Your task to perform on an android device: toggle priority inbox in the gmail app Image 0: 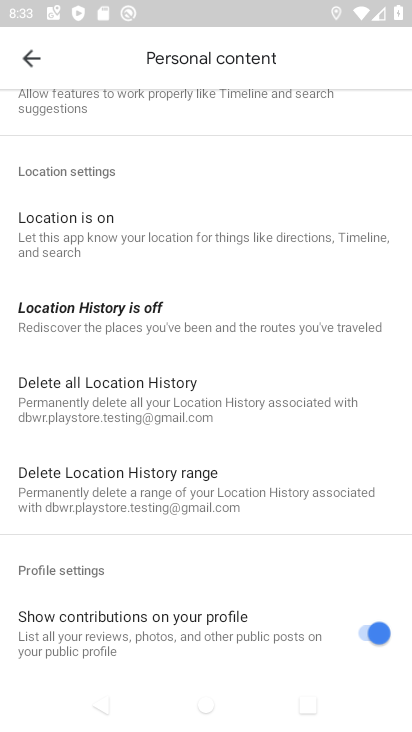
Step 0: press home button
Your task to perform on an android device: toggle priority inbox in the gmail app Image 1: 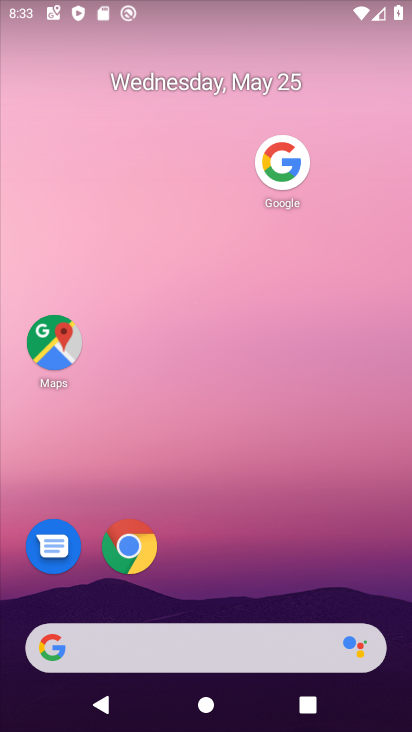
Step 1: drag from (117, 645) to (281, 162)
Your task to perform on an android device: toggle priority inbox in the gmail app Image 2: 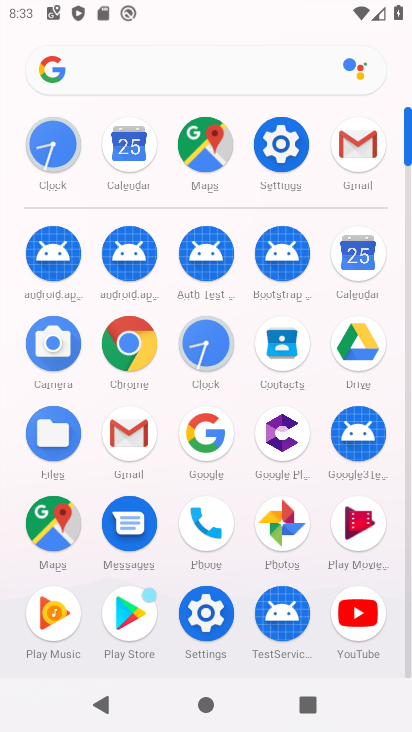
Step 2: click (351, 155)
Your task to perform on an android device: toggle priority inbox in the gmail app Image 3: 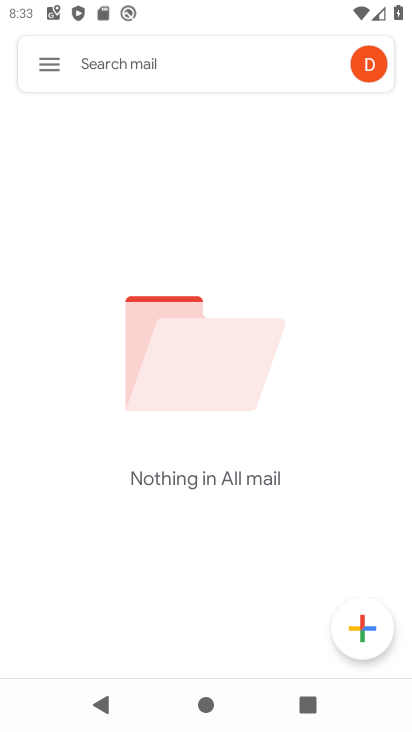
Step 3: drag from (48, 64) to (84, 335)
Your task to perform on an android device: toggle priority inbox in the gmail app Image 4: 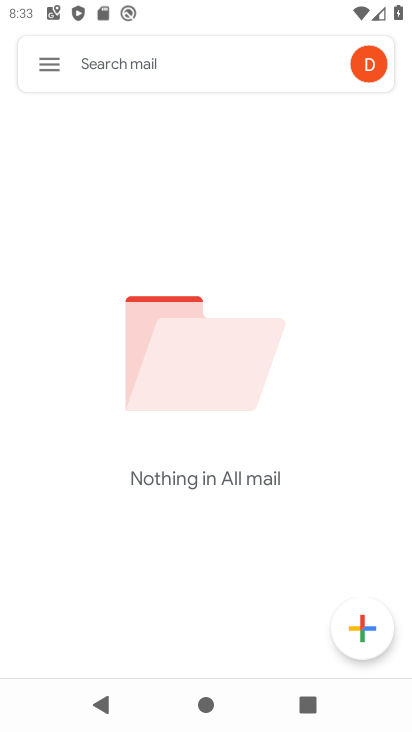
Step 4: click (47, 63)
Your task to perform on an android device: toggle priority inbox in the gmail app Image 5: 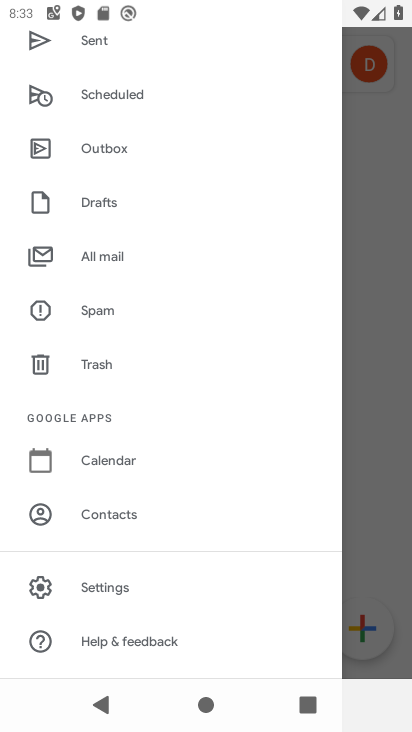
Step 5: click (107, 589)
Your task to perform on an android device: toggle priority inbox in the gmail app Image 6: 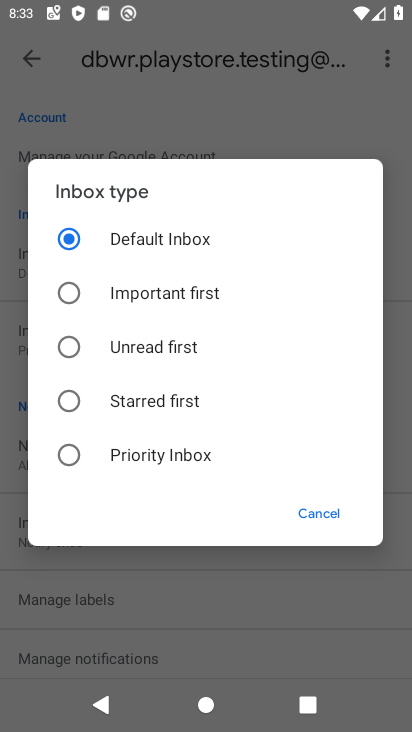
Step 6: click (66, 458)
Your task to perform on an android device: toggle priority inbox in the gmail app Image 7: 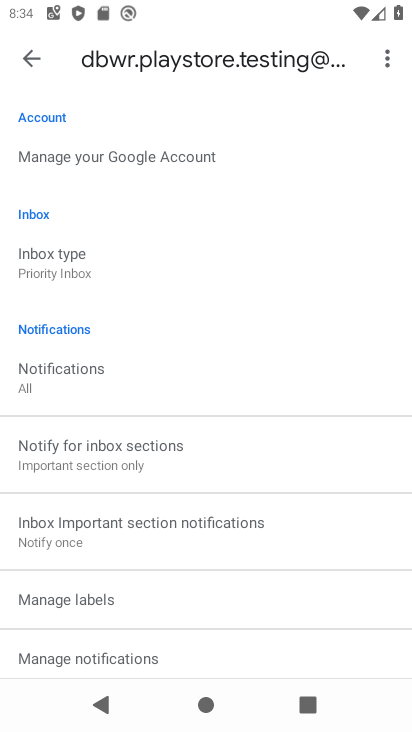
Step 7: task complete